Your task to perform on an android device: Open Yahoo.com Image 0: 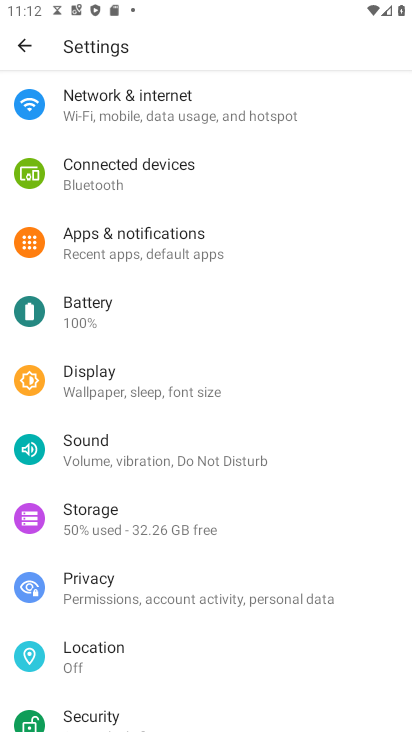
Step 0: press home button
Your task to perform on an android device: Open Yahoo.com Image 1: 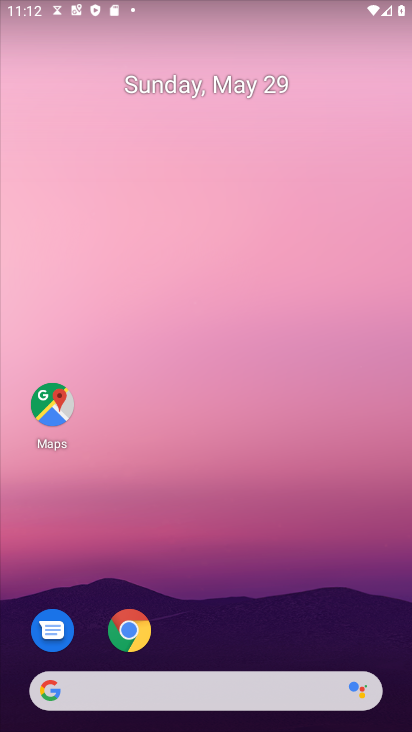
Step 1: click (138, 628)
Your task to perform on an android device: Open Yahoo.com Image 2: 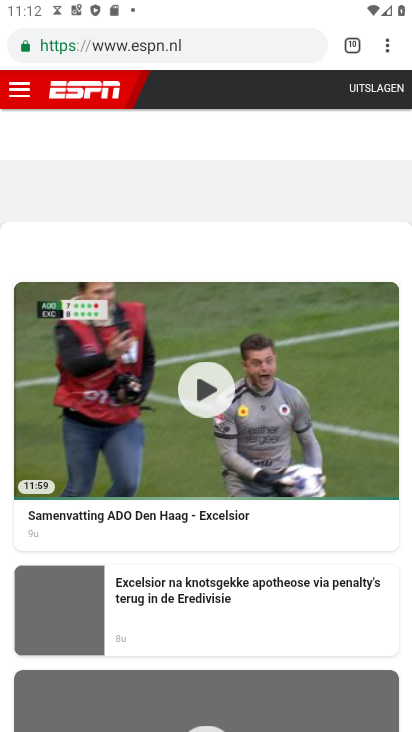
Step 2: click (359, 36)
Your task to perform on an android device: Open Yahoo.com Image 3: 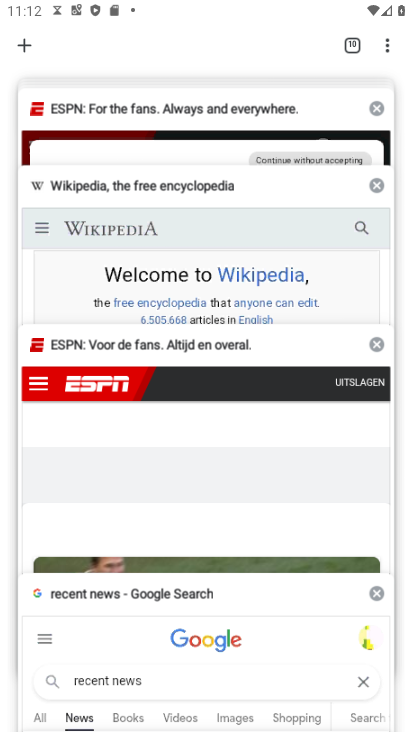
Step 3: drag from (214, 180) to (195, 574)
Your task to perform on an android device: Open Yahoo.com Image 4: 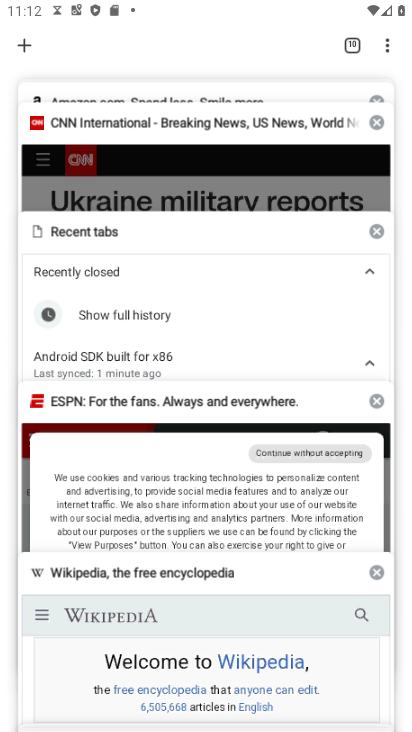
Step 4: drag from (199, 259) to (185, 601)
Your task to perform on an android device: Open Yahoo.com Image 5: 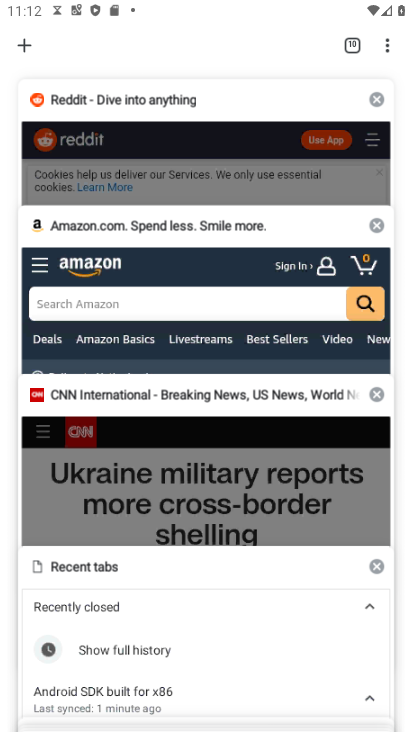
Step 5: drag from (178, 309) to (214, 689)
Your task to perform on an android device: Open Yahoo.com Image 6: 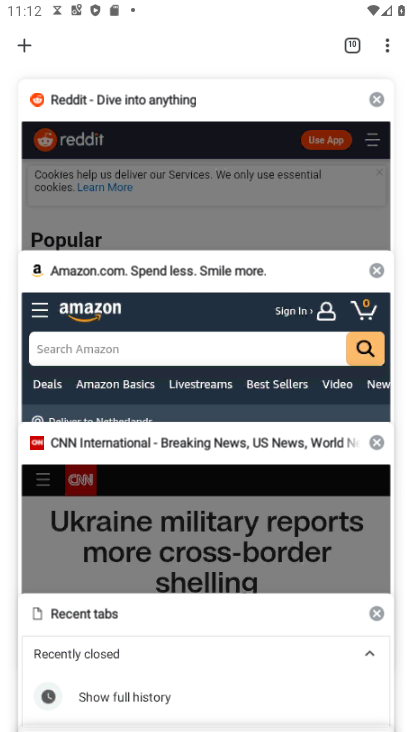
Step 6: drag from (232, 113) to (228, 639)
Your task to perform on an android device: Open Yahoo.com Image 7: 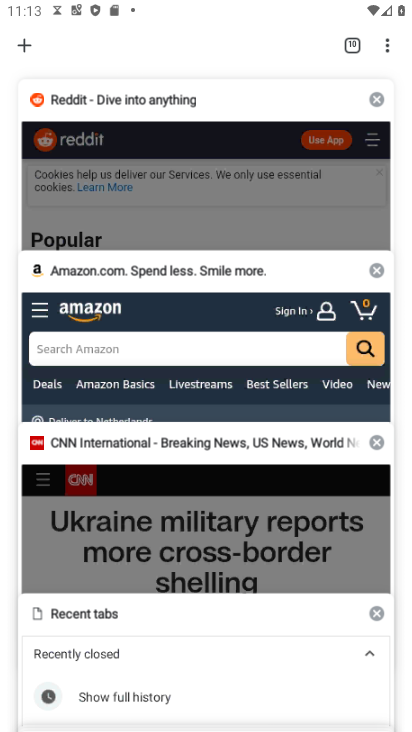
Step 7: click (18, 30)
Your task to perform on an android device: Open Yahoo.com Image 8: 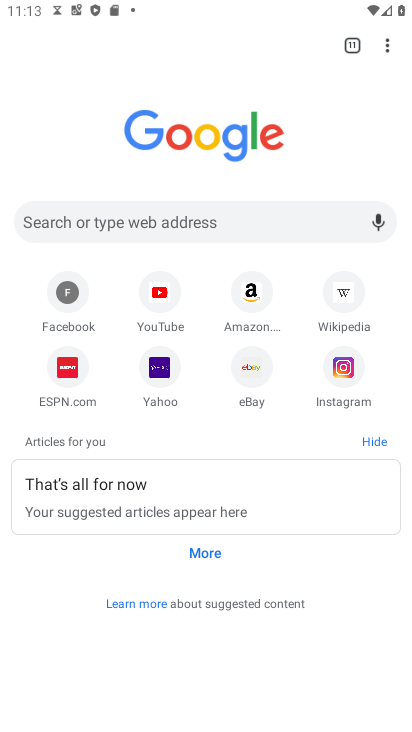
Step 8: click (161, 362)
Your task to perform on an android device: Open Yahoo.com Image 9: 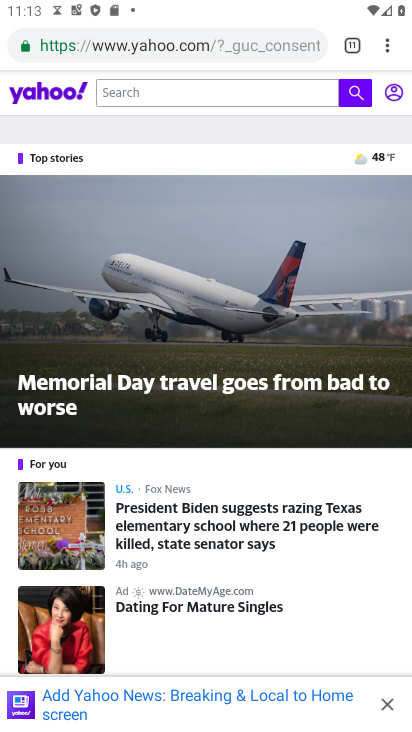
Step 9: task complete